Your task to perform on an android device: Add "usb-a" to the cart on costco Image 0: 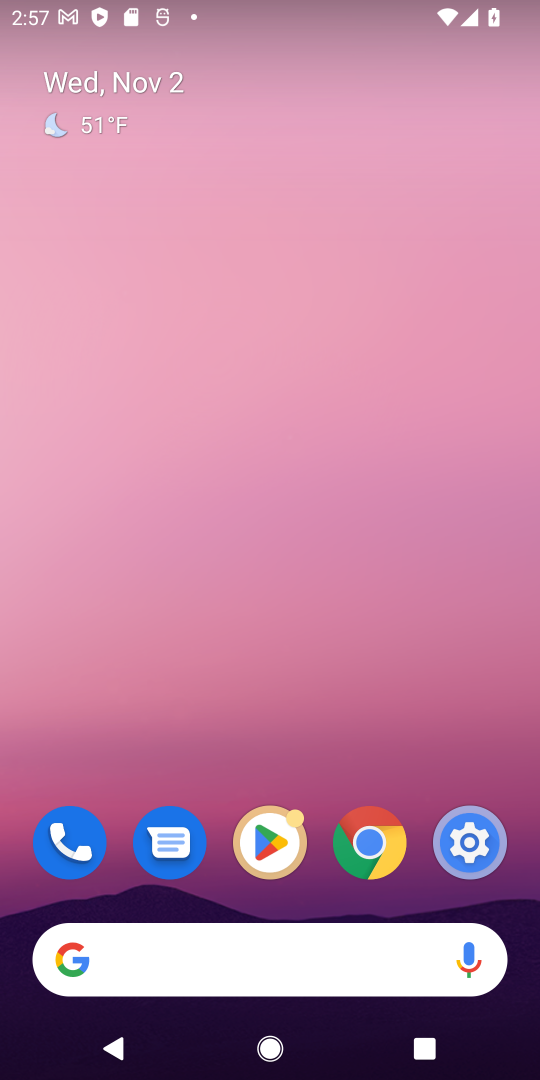
Step 0: click (274, 942)
Your task to perform on an android device: Add "usb-a" to the cart on costco Image 1: 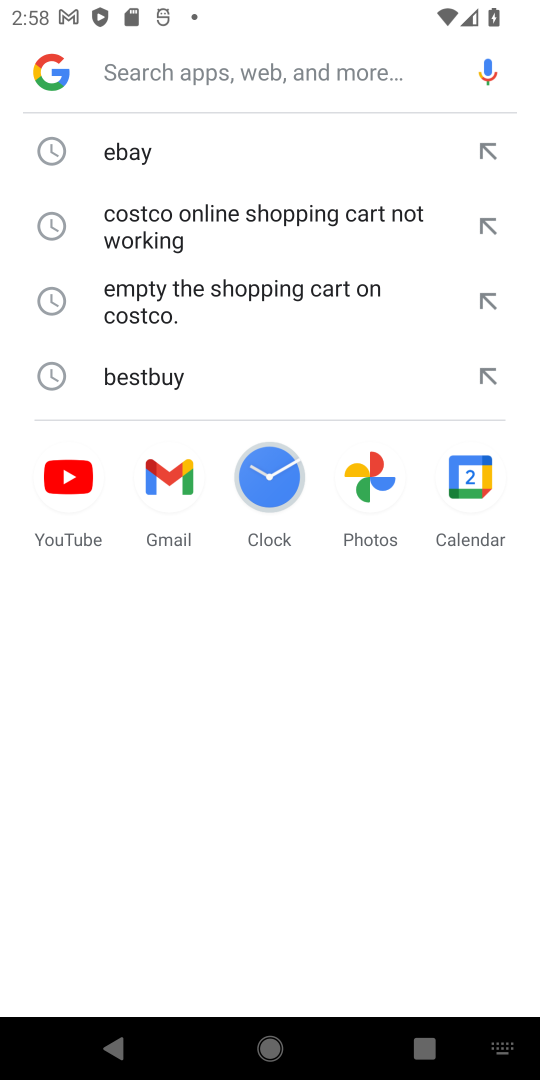
Step 1: type "costco"
Your task to perform on an android device: Add "usb-a" to the cart on costco Image 2: 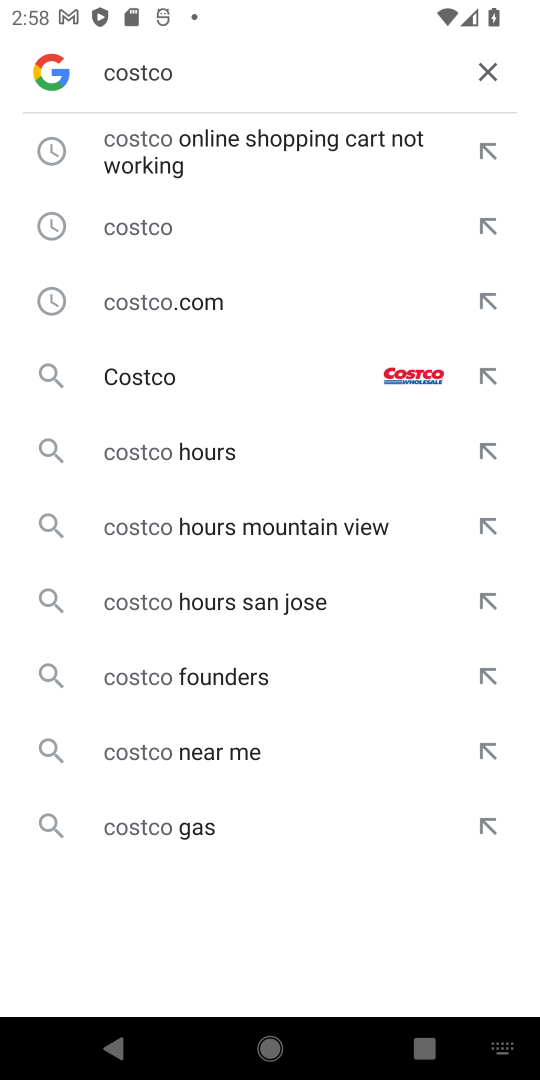
Step 2: click (126, 294)
Your task to perform on an android device: Add "usb-a" to the cart on costco Image 3: 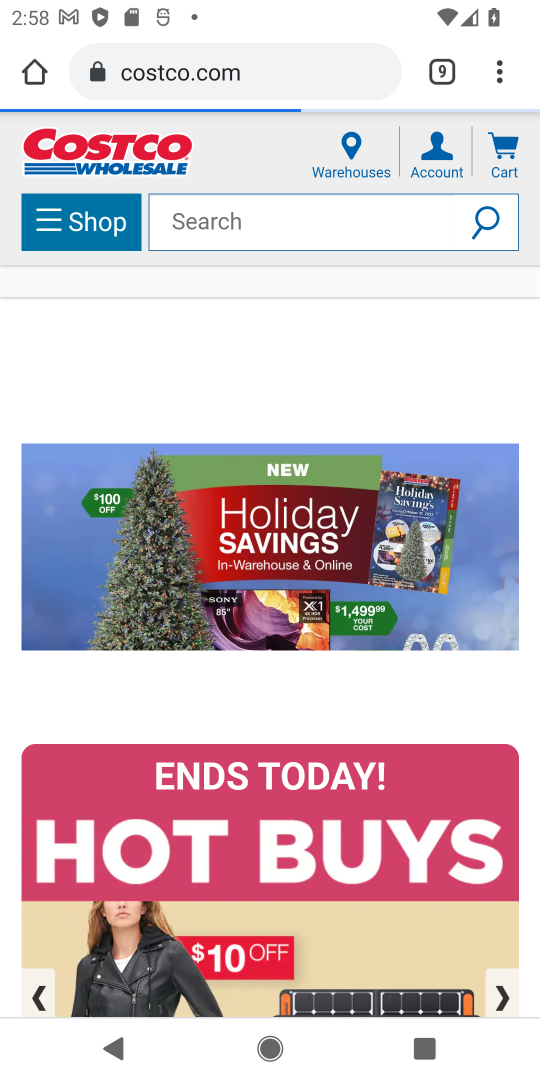
Step 3: click (216, 221)
Your task to perform on an android device: Add "usb-a" to the cart on costco Image 4: 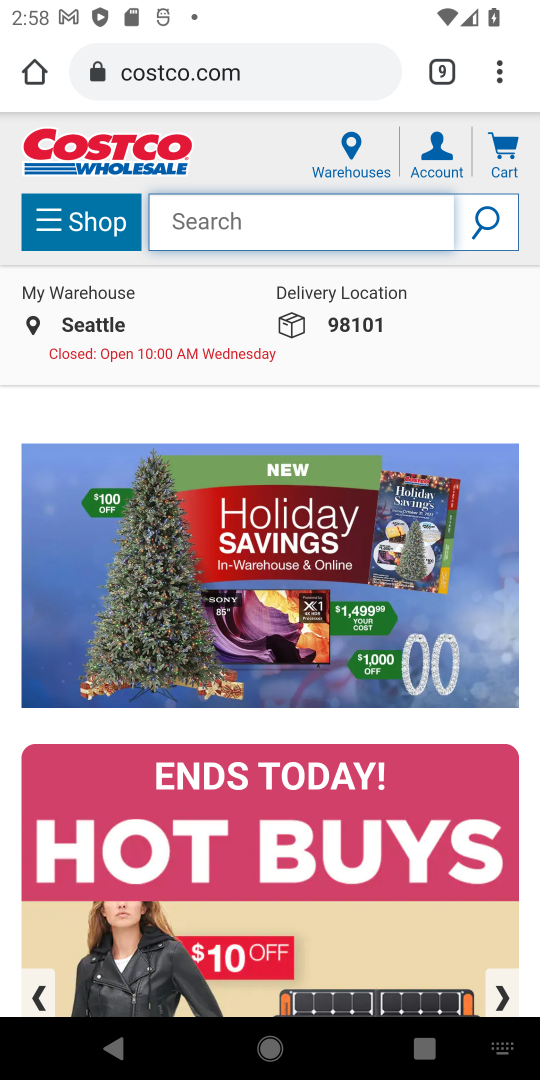
Step 4: type "usb-a"
Your task to perform on an android device: Add "usb-a" to the cart on costco Image 5: 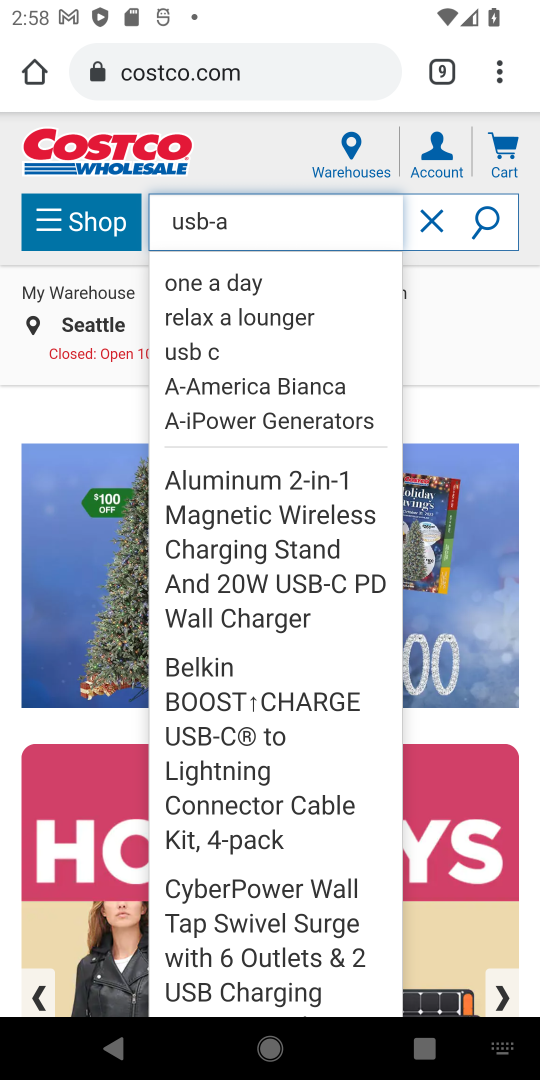
Step 5: click (484, 222)
Your task to perform on an android device: Add "usb-a" to the cart on costco Image 6: 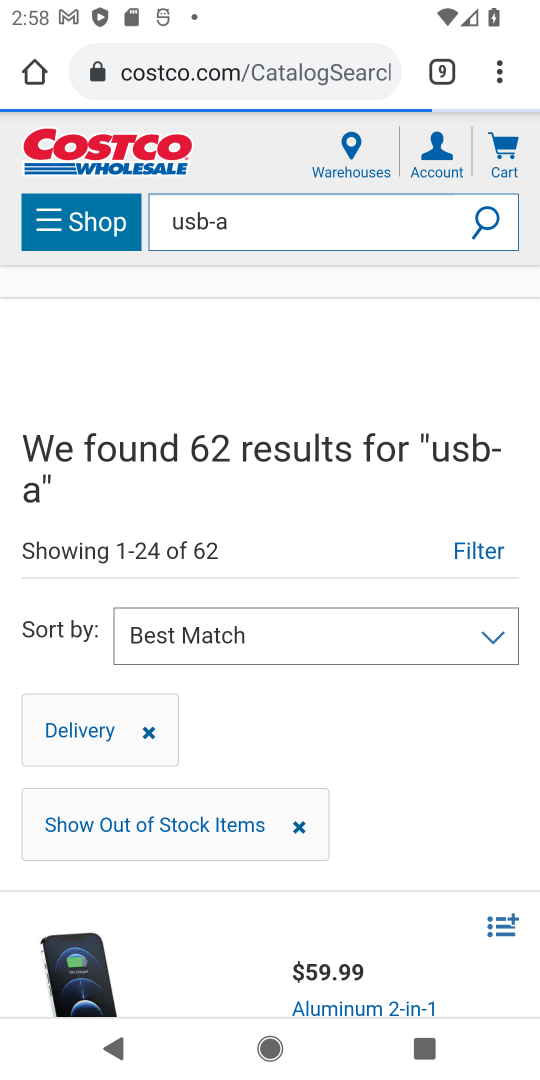
Step 6: drag from (328, 517) to (305, 345)
Your task to perform on an android device: Add "usb-a" to the cart on costco Image 7: 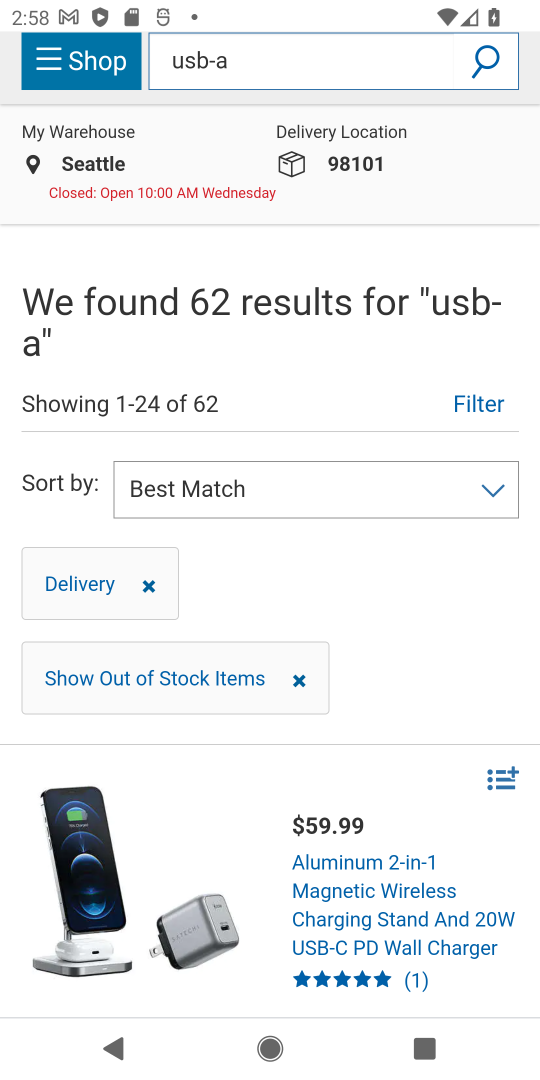
Step 7: drag from (387, 655) to (350, 382)
Your task to perform on an android device: Add "usb-a" to the cart on costco Image 8: 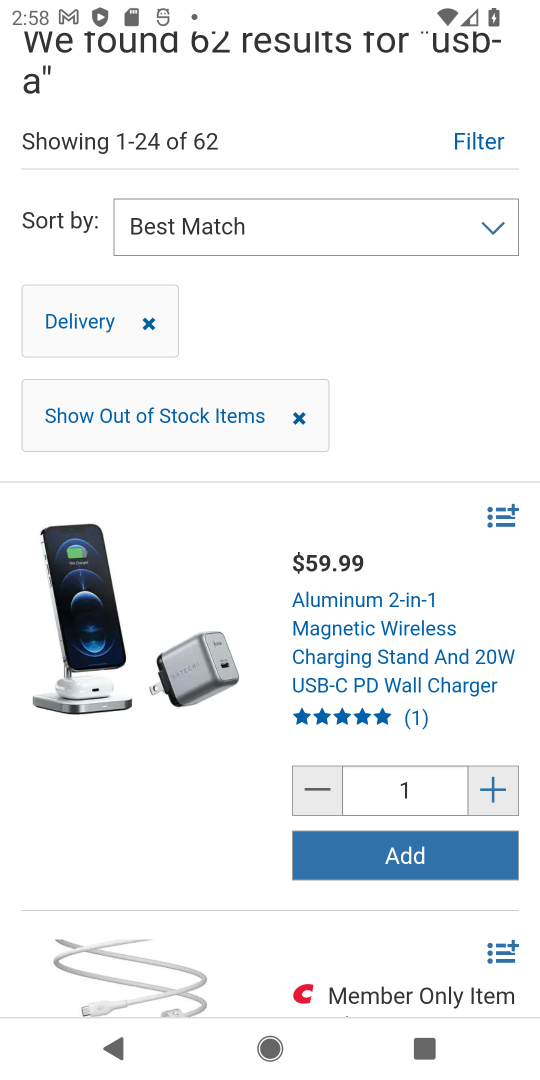
Step 8: click (401, 856)
Your task to perform on an android device: Add "usb-a" to the cart on costco Image 9: 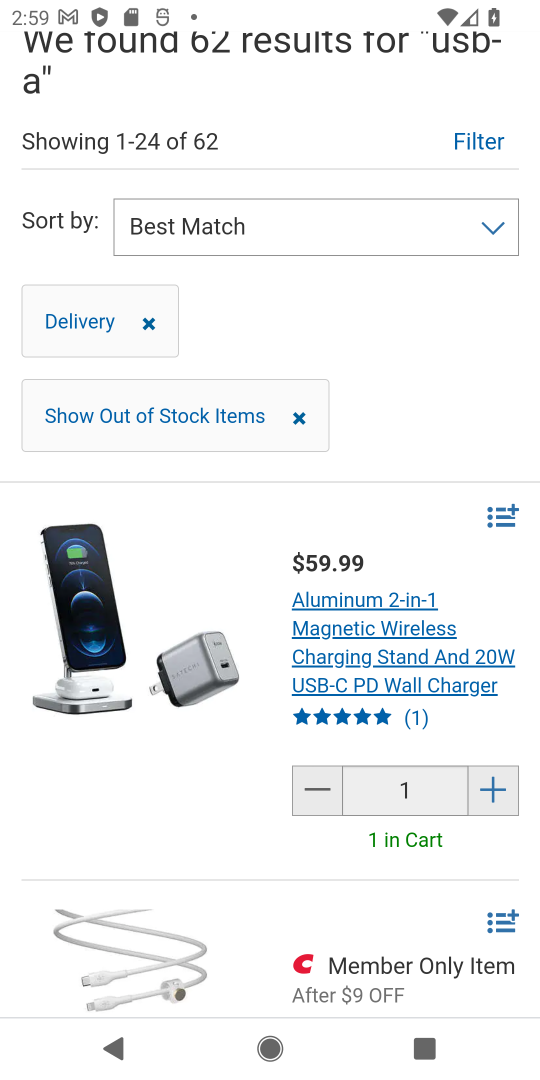
Step 9: task complete